Your task to perform on an android device: What is the recent news? Image 0: 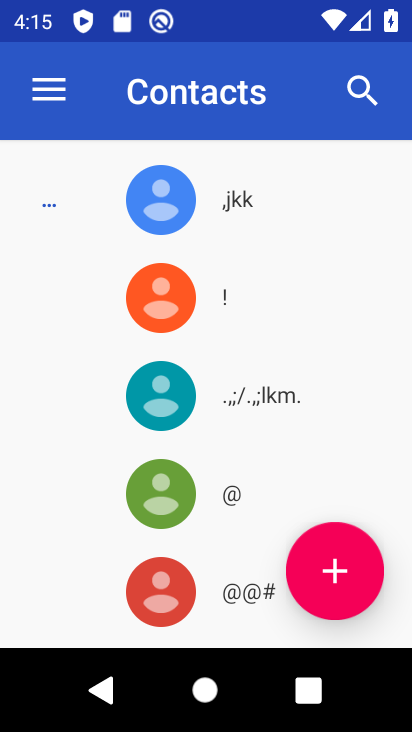
Step 0: press home button
Your task to perform on an android device: What is the recent news? Image 1: 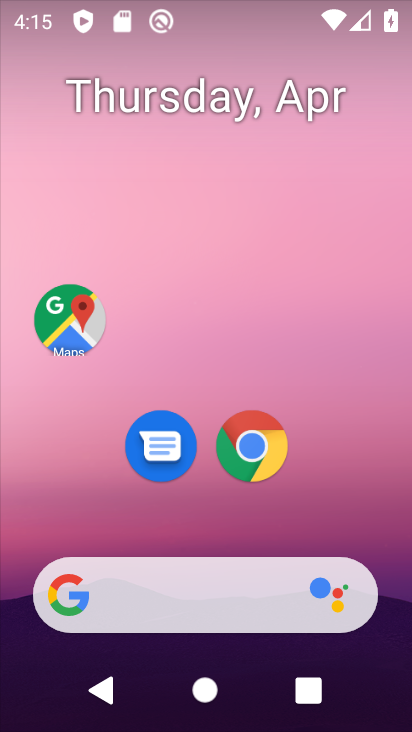
Step 1: click (234, 590)
Your task to perform on an android device: What is the recent news? Image 2: 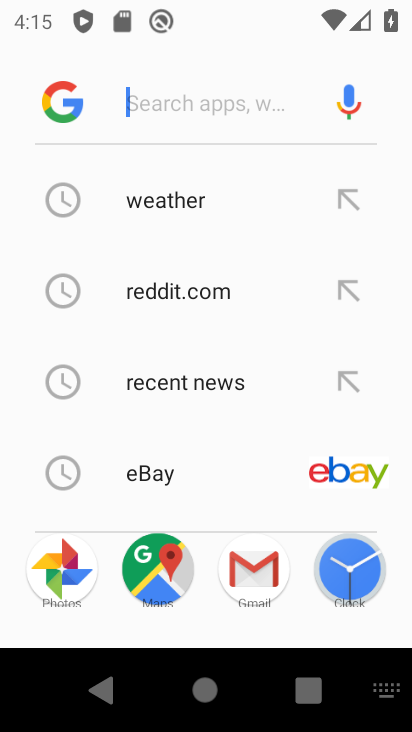
Step 2: click (56, 104)
Your task to perform on an android device: What is the recent news? Image 3: 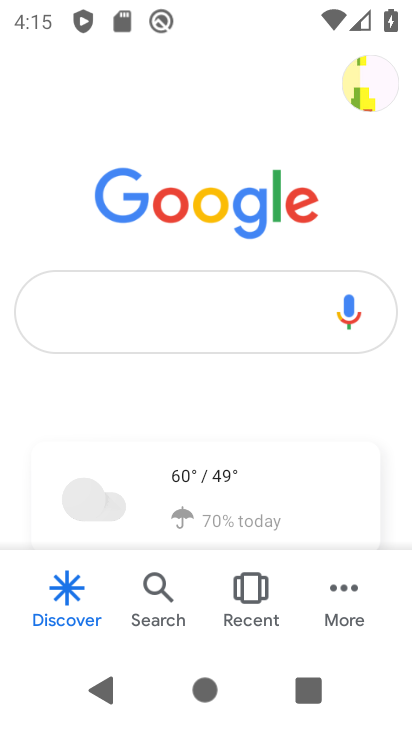
Step 3: task complete